Your task to perform on an android device: Go to location settings Image 0: 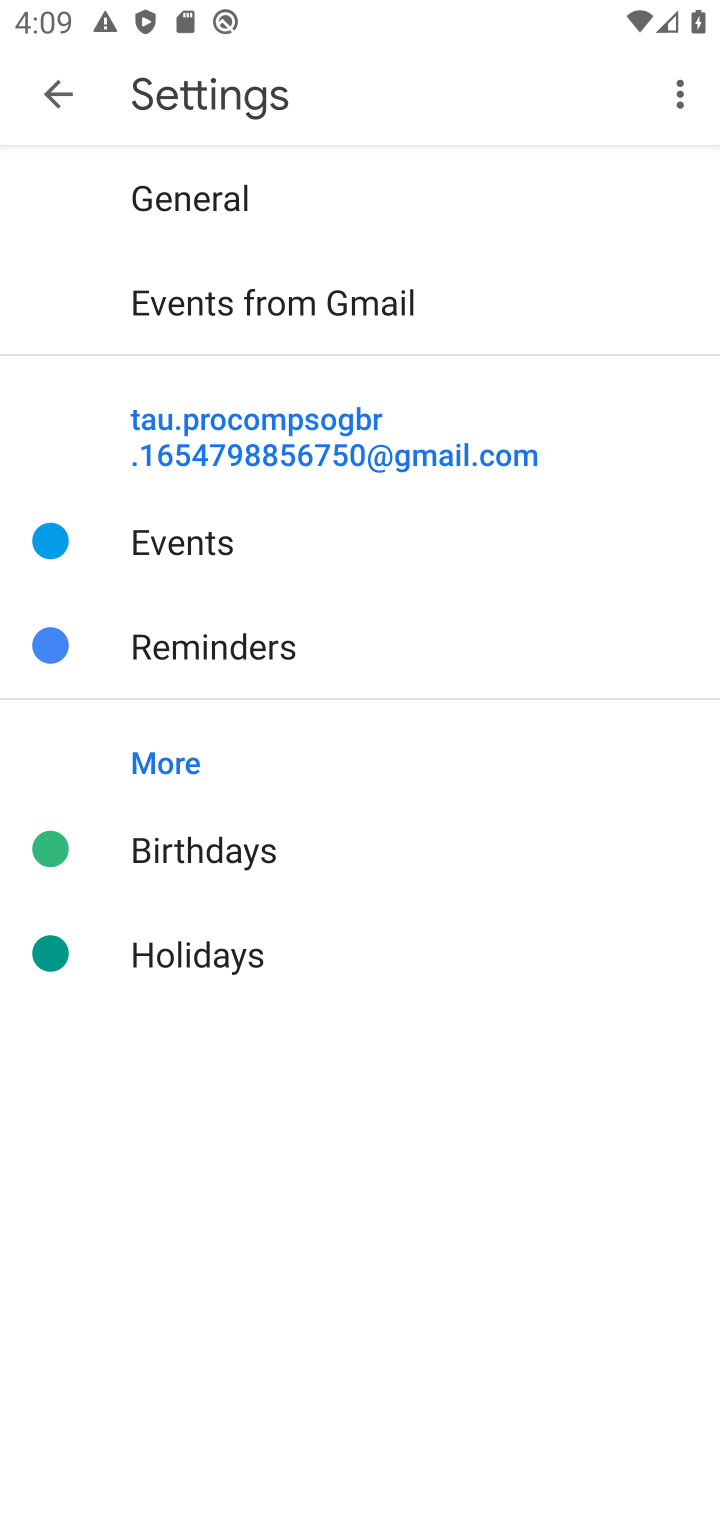
Step 0: task complete